Your task to perform on an android device: Add "razer blade" to the cart on walmart Image 0: 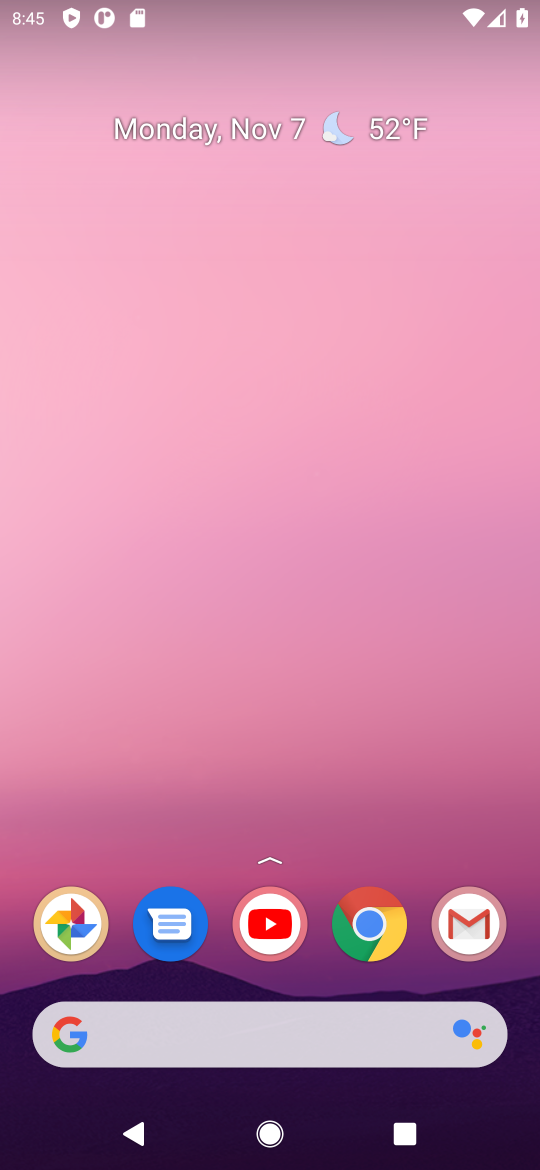
Step 0: click (376, 929)
Your task to perform on an android device: Add "razer blade" to the cart on walmart Image 1: 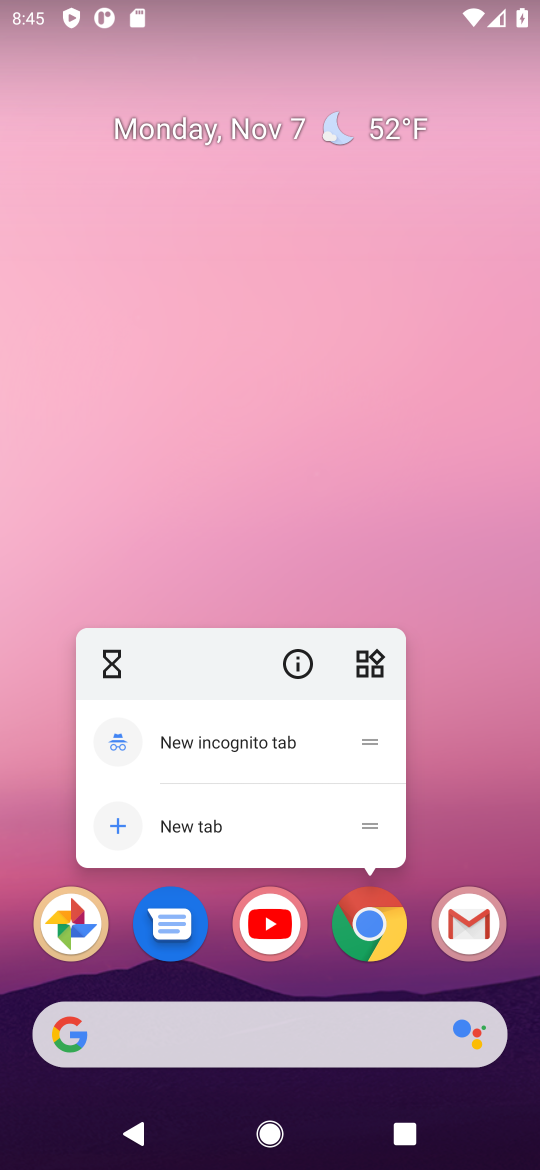
Step 1: click (357, 946)
Your task to perform on an android device: Add "razer blade" to the cart on walmart Image 2: 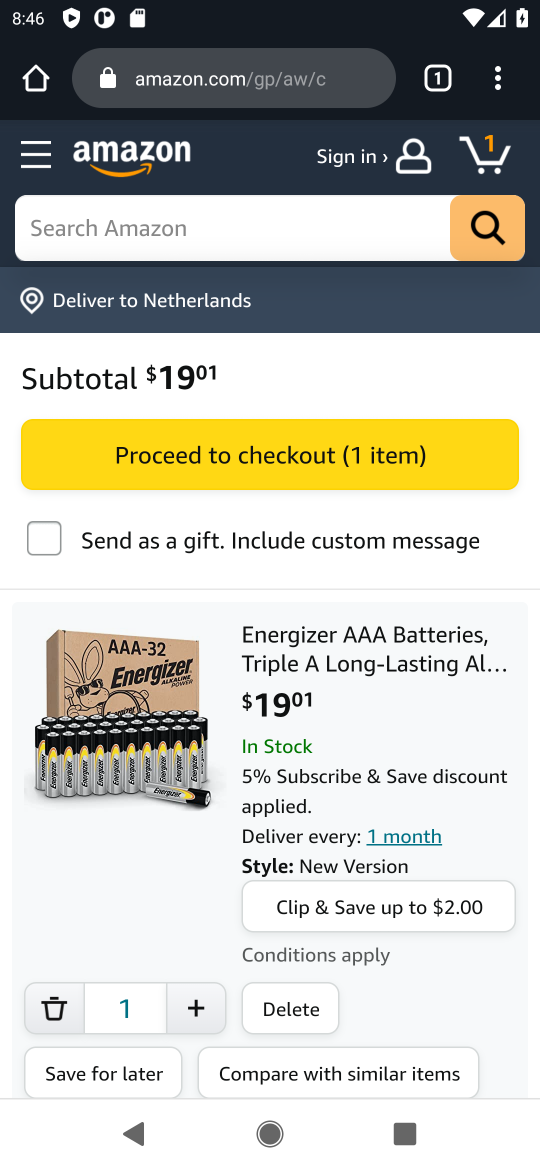
Step 2: click (184, 84)
Your task to perform on an android device: Add "razer blade" to the cart on walmart Image 3: 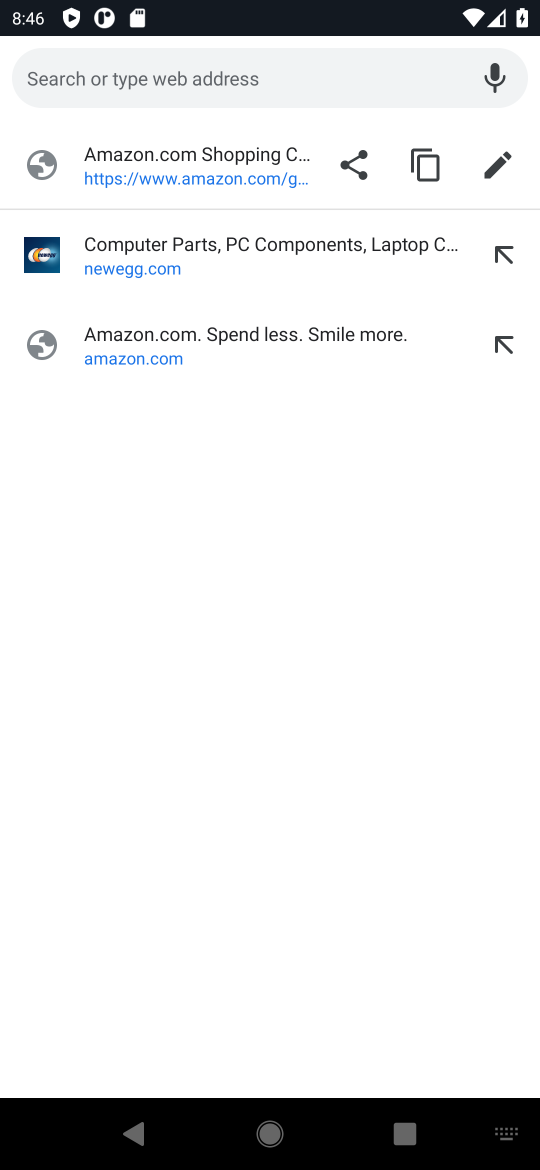
Step 3: type "walmart"
Your task to perform on an android device: Add "razer blade" to the cart on walmart Image 4: 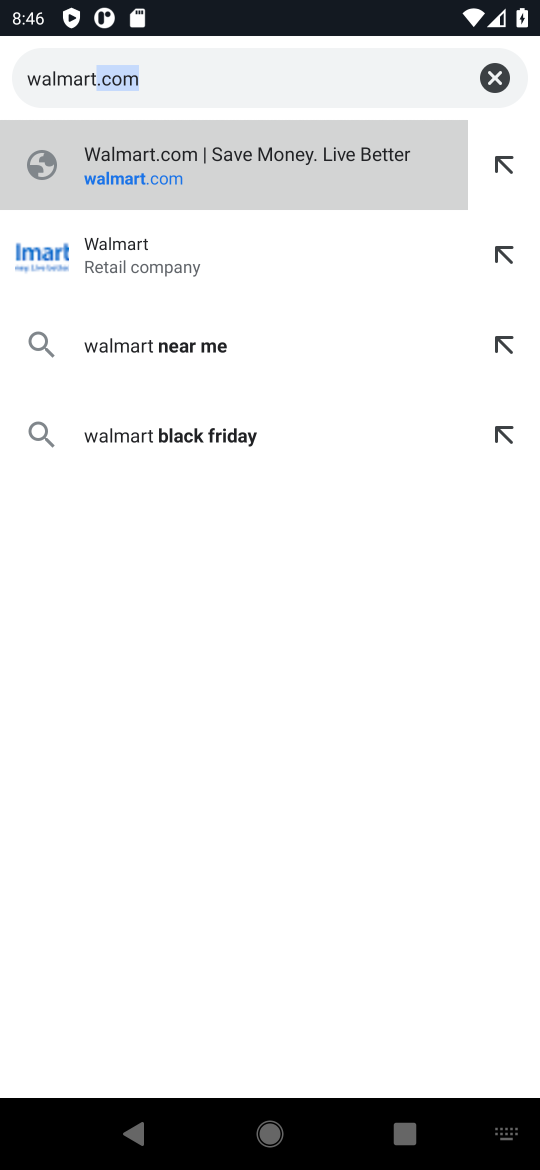
Step 4: click (296, 159)
Your task to perform on an android device: Add "razer blade" to the cart on walmart Image 5: 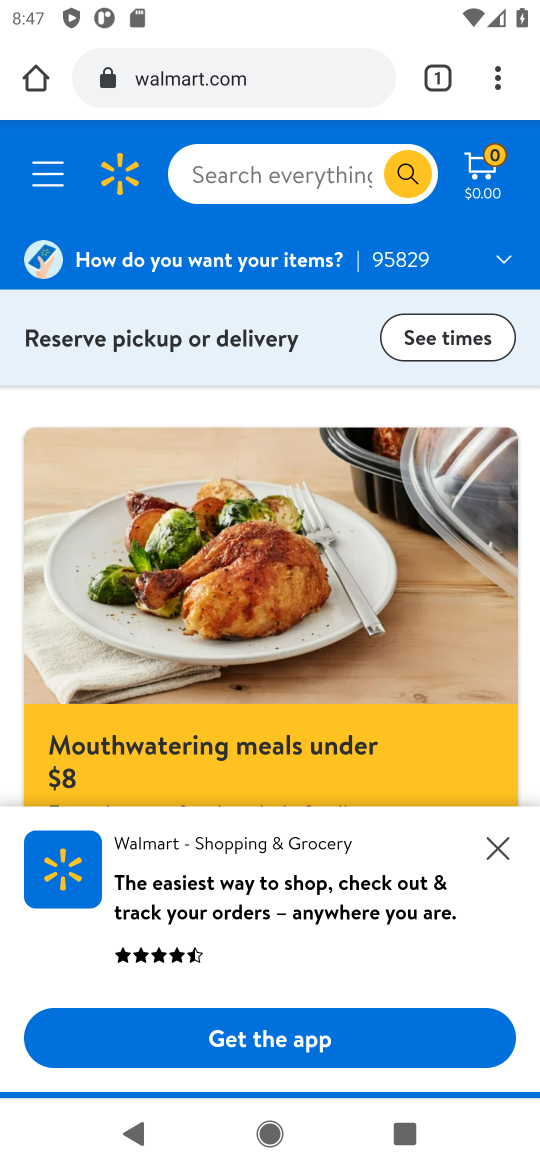
Step 5: click (278, 152)
Your task to perform on an android device: Add "razer blade" to the cart on walmart Image 6: 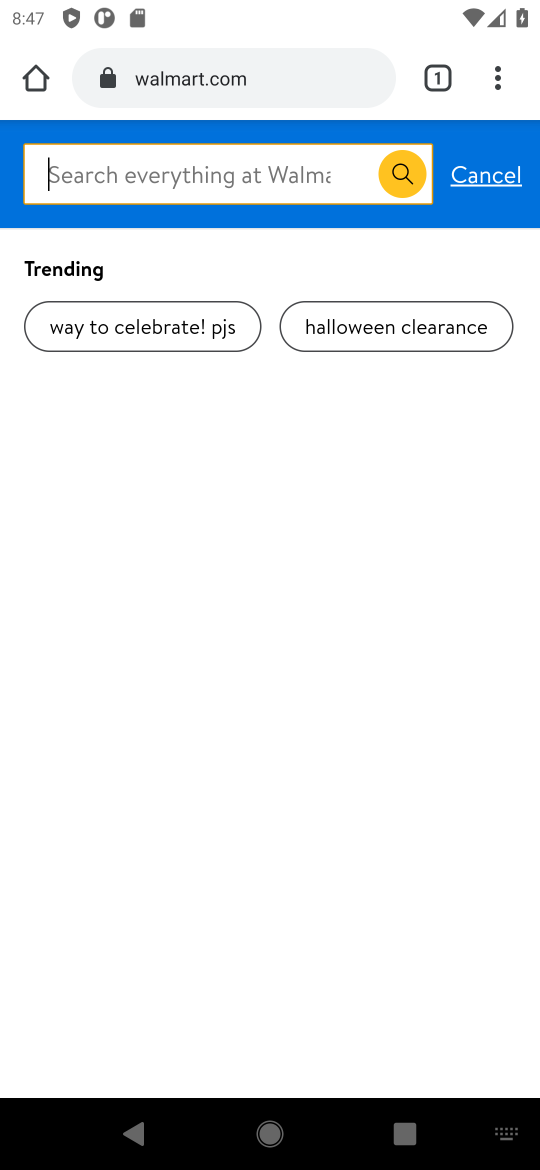
Step 6: type "razer blade"
Your task to perform on an android device: Add "razer blade" to the cart on walmart Image 7: 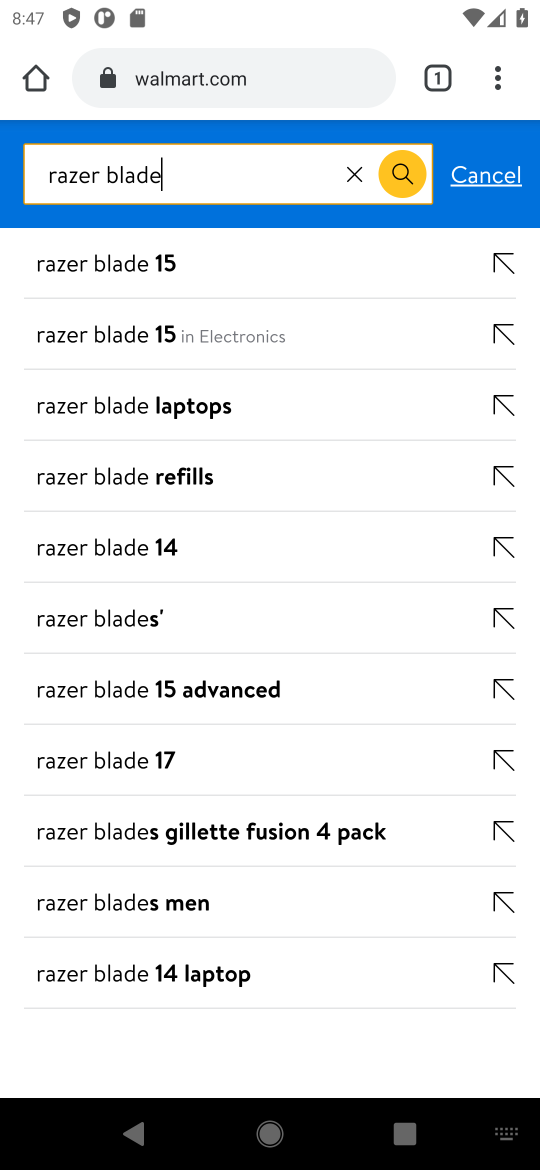
Step 7: press enter
Your task to perform on an android device: Add "razer blade" to the cart on walmart Image 8: 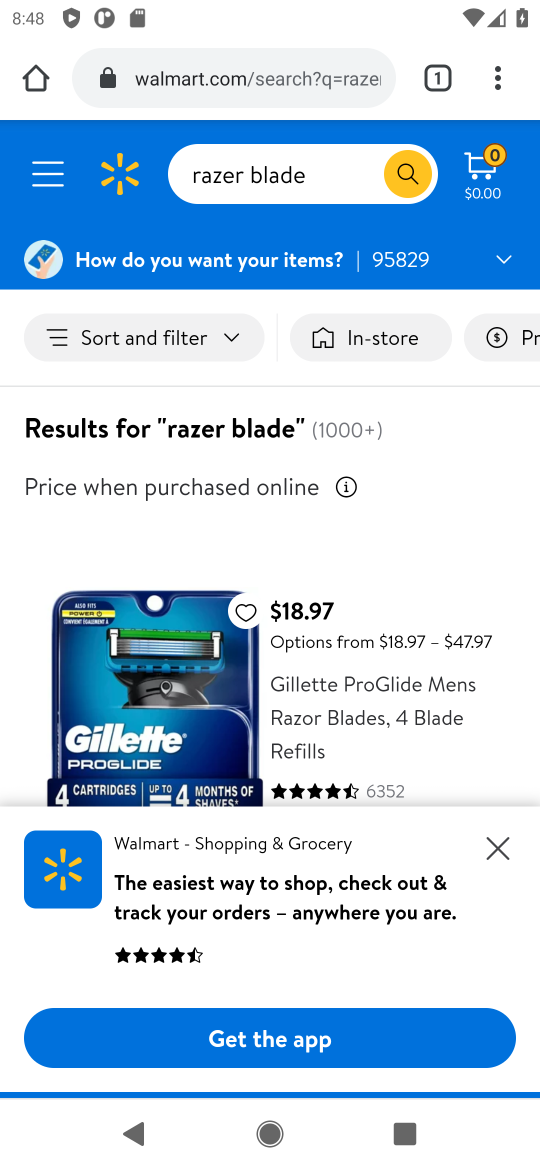
Step 8: drag from (392, 783) to (179, 97)
Your task to perform on an android device: Add "razer blade" to the cart on walmart Image 9: 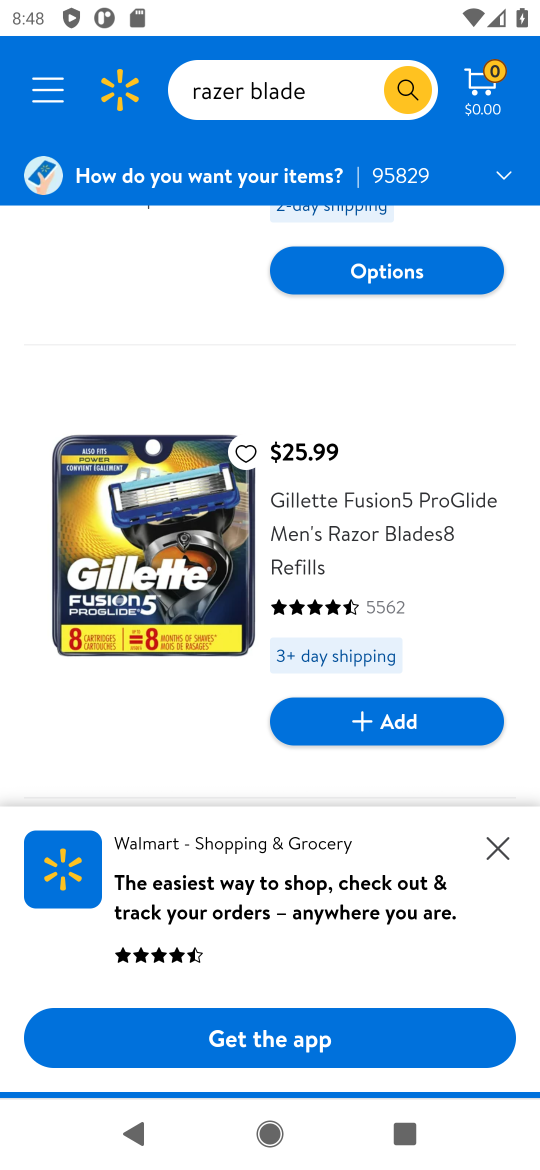
Step 9: drag from (317, 324) to (405, 847)
Your task to perform on an android device: Add "razer blade" to the cart on walmart Image 10: 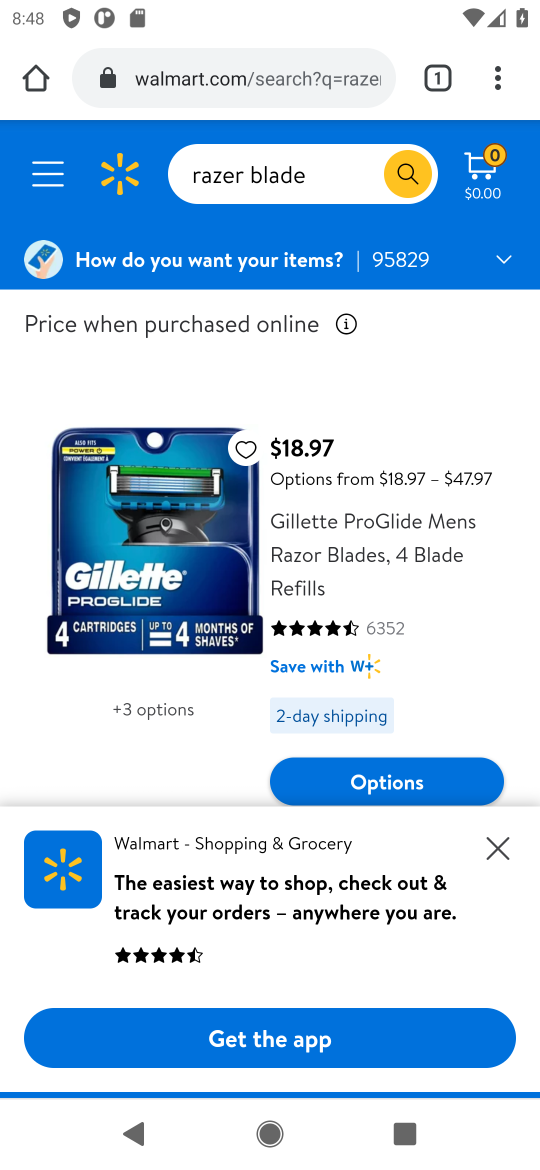
Step 10: click (407, 769)
Your task to perform on an android device: Add "razer blade" to the cart on walmart Image 11: 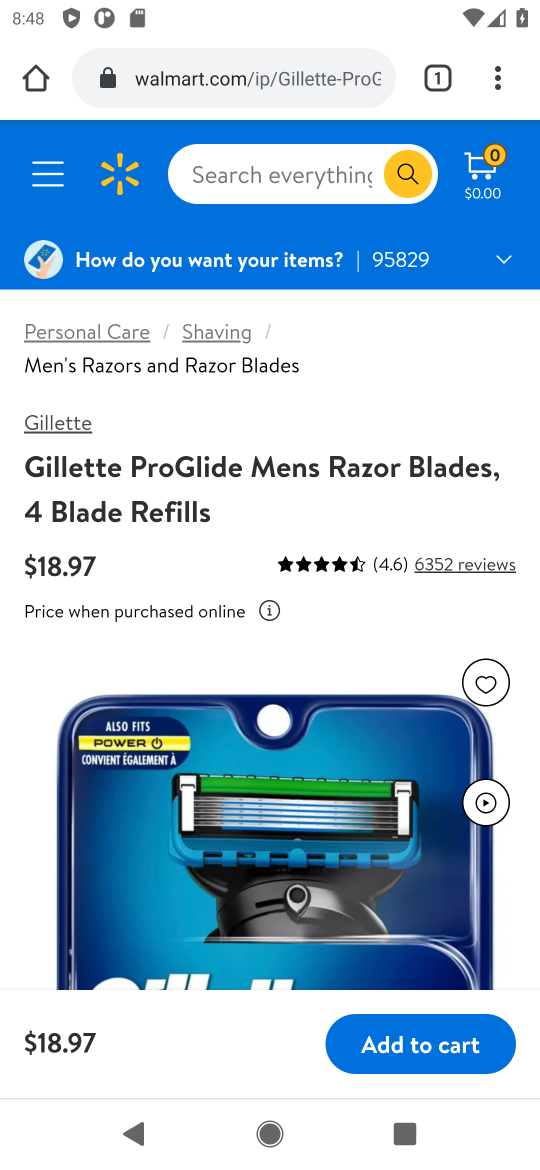
Step 11: click (404, 1049)
Your task to perform on an android device: Add "razer blade" to the cart on walmart Image 12: 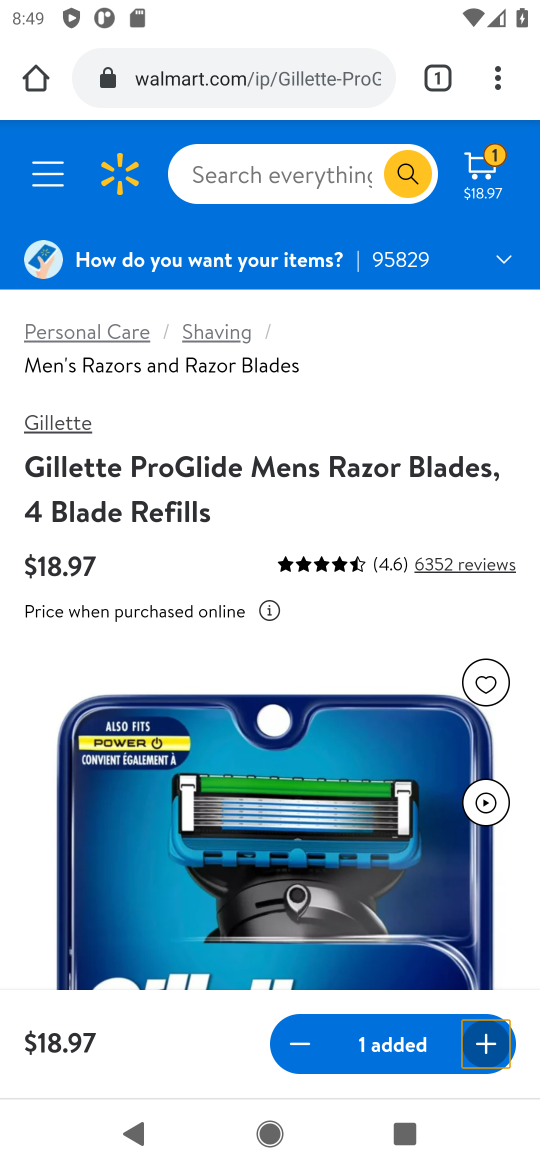
Step 12: task complete